Your task to perform on an android device: Go to display settings Image 0: 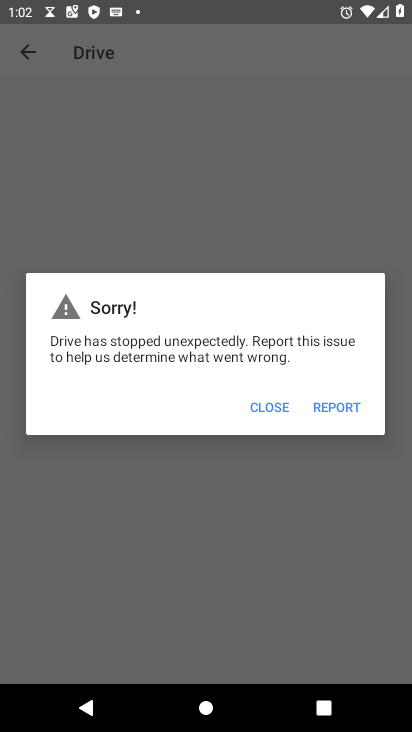
Step 0: press home button
Your task to perform on an android device: Go to display settings Image 1: 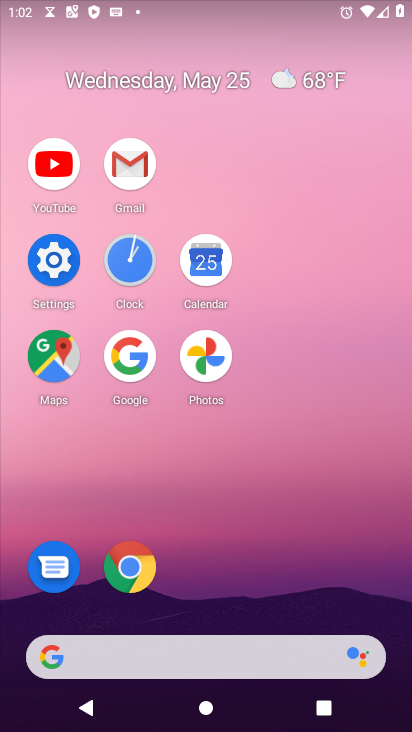
Step 1: click (57, 255)
Your task to perform on an android device: Go to display settings Image 2: 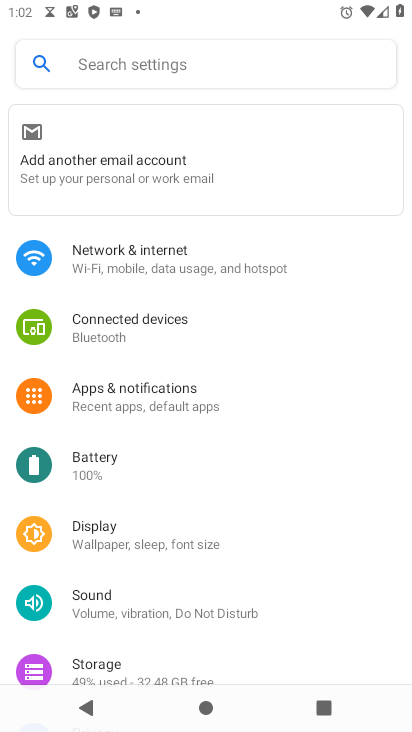
Step 2: click (224, 535)
Your task to perform on an android device: Go to display settings Image 3: 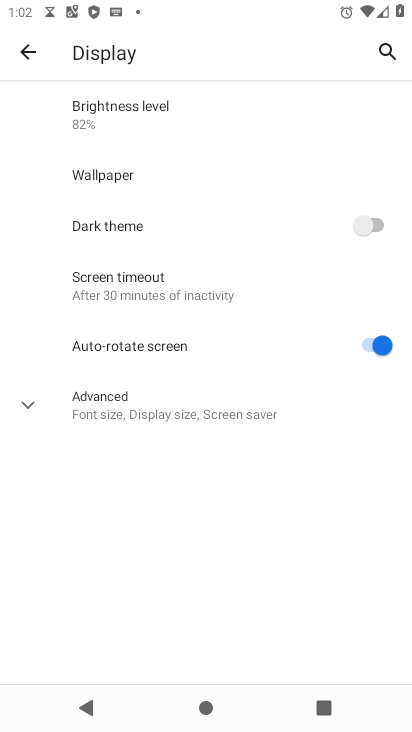
Step 3: task complete